Your task to perform on an android device: Go to display settings Image 0: 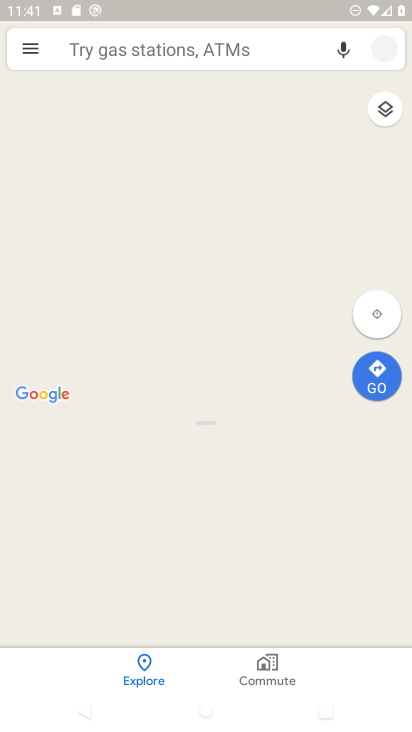
Step 0: press home button
Your task to perform on an android device: Go to display settings Image 1: 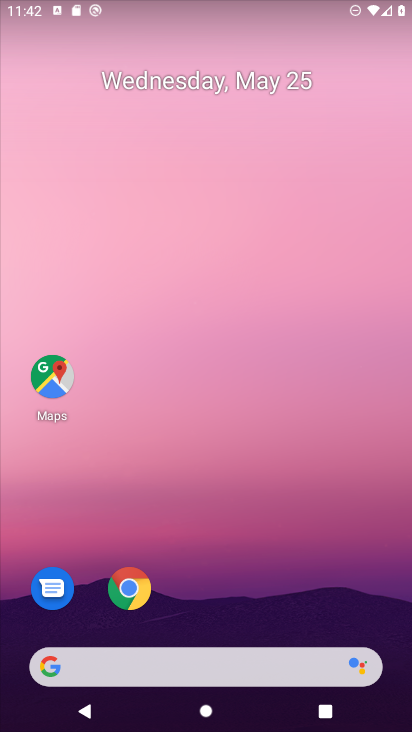
Step 1: drag from (0, 717) to (219, 159)
Your task to perform on an android device: Go to display settings Image 2: 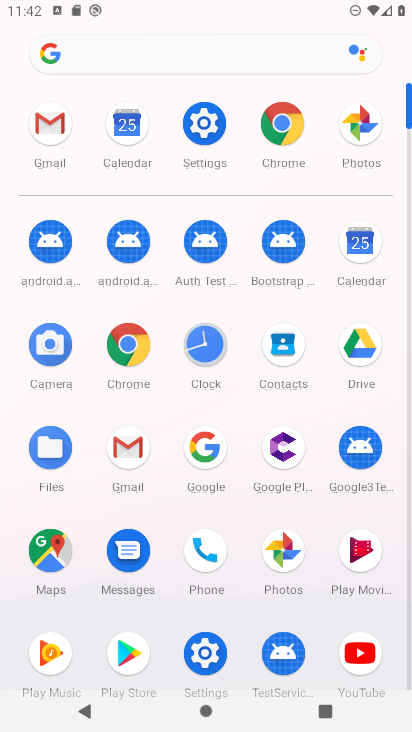
Step 2: click (209, 113)
Your task to perform on an android device: Go to display settings Image 3: 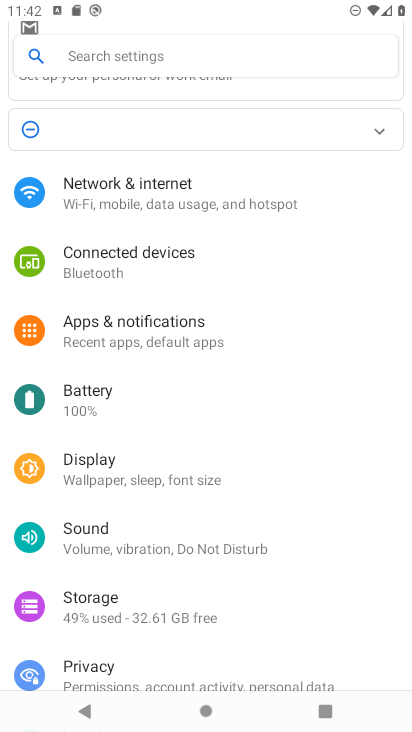
Step 3: click (75, 472)
Your task to perform on an android device: Go to display settings Image 4: 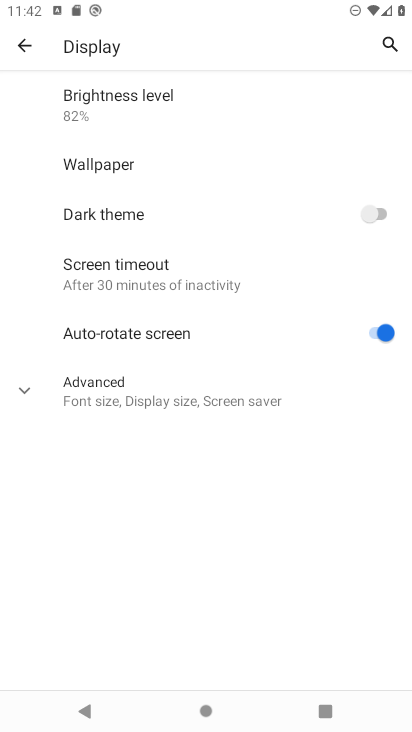
Step 4: task complete